Your task to perform on an android device: turn pop-ups on in chrome Image 0: 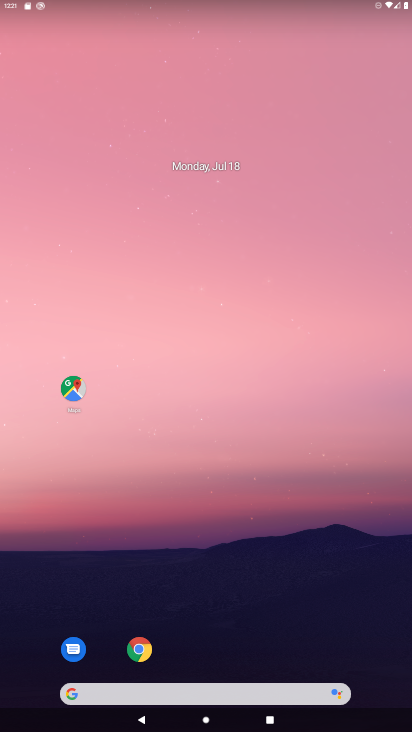
Step 0: click (135, 649)
Your task to perform on an android device: turn pop-ups on in chrome Image 1: 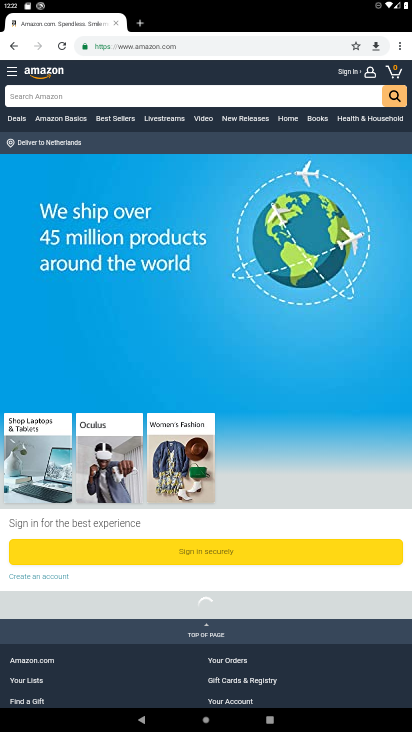
Step 1: click (400, 50)
Your task to perform on an android device: turn pop-ups on in chrome Image 2: 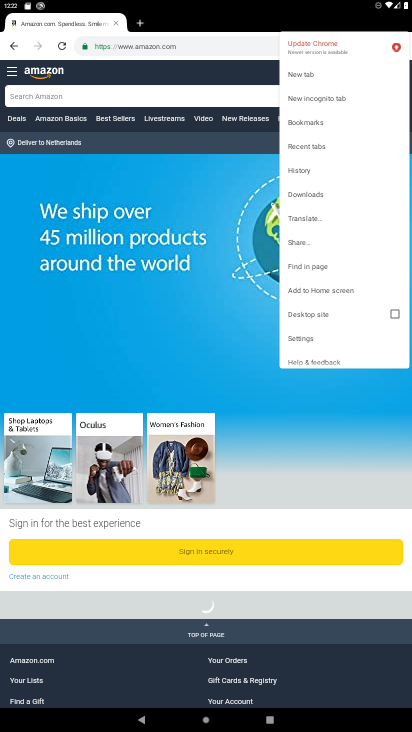
Step 2: click (313, 336)
Your task to perform on an android device: turn pop-ups on in chrome Image 3: 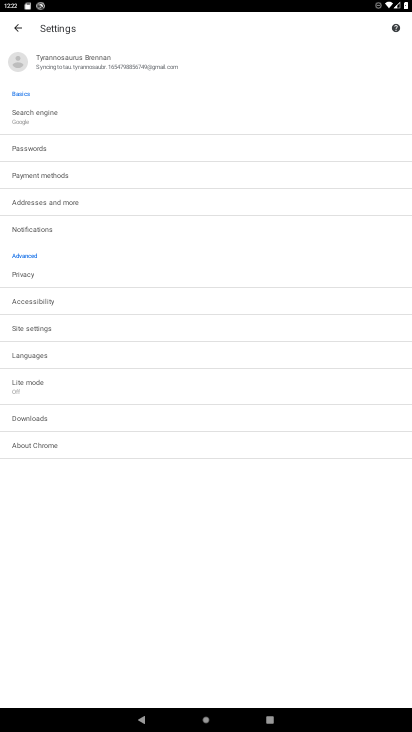
Step 3: click (56, 322)
Your task to perform on an android device: turn pop-ups on in chrome Image 4: 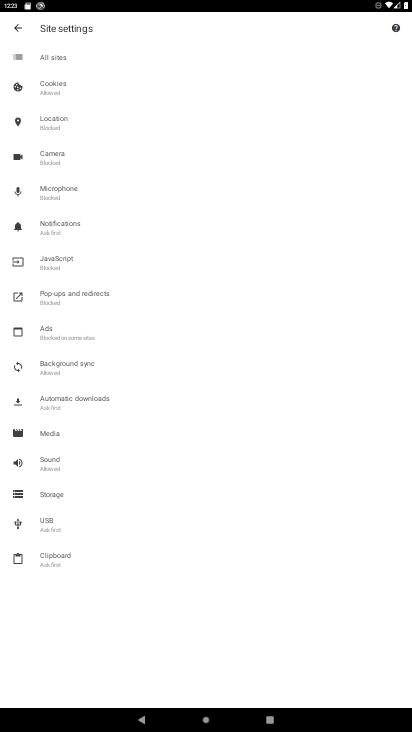
Step 4: click (83, 297)
Your task to perform on an android device: turn pop-ups on in chrome Image 5: 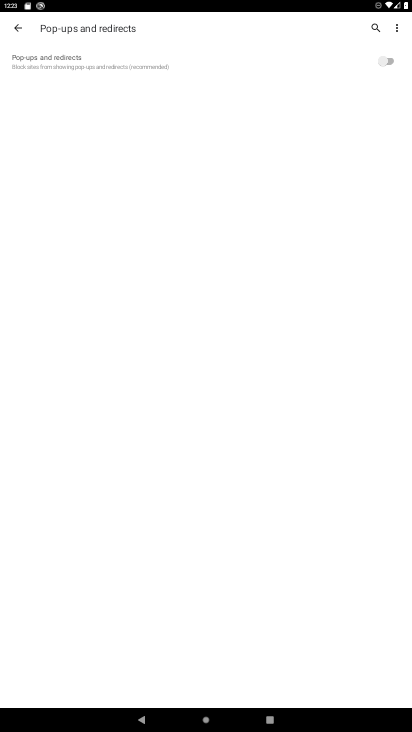
Step 5: task complete